Your task to perform on an android device: check battery use Image 0: 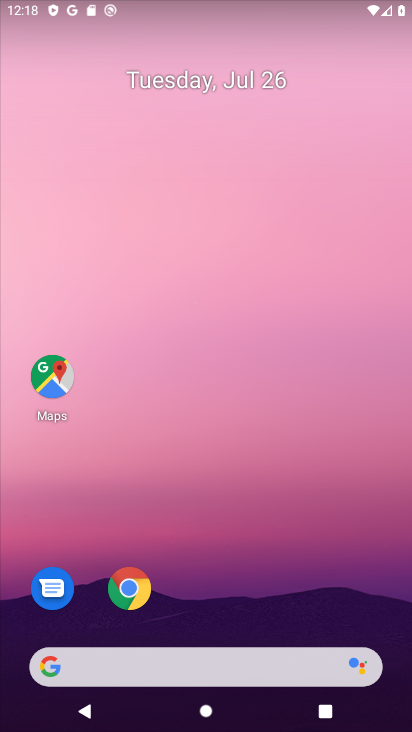
Step 0: drag from (263, 619) to (226, 11)
Your task to perform on an android device: check battery use Image 1: 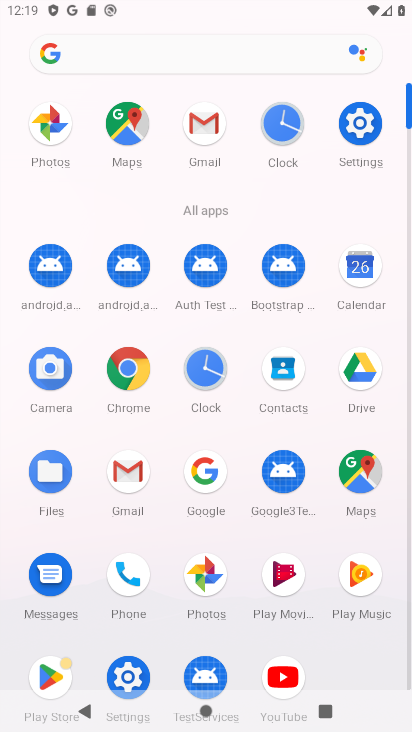
Step 1: click (366, 123)
Your task to perform on an android device: check battery use Image 2: 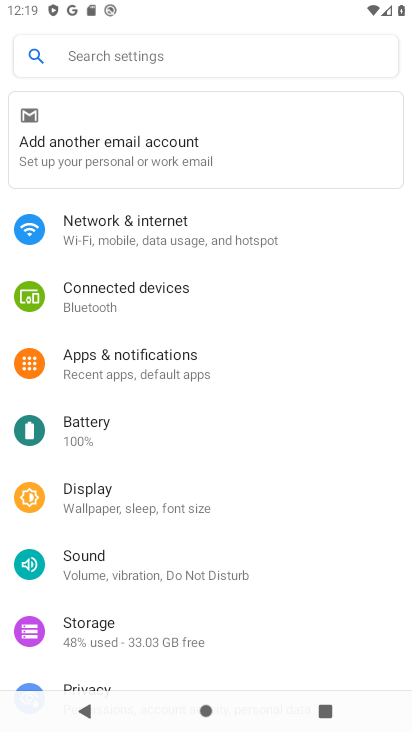
Step 2: drag from (213, 601) to (200, 279)
Your task to perform on an android device: check battery use Image 3: 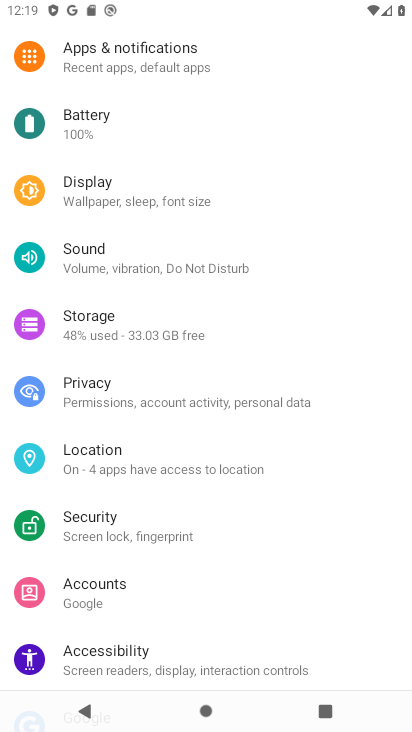
Step 3: click (305, 120)
Your task to perform on an android device: check battery use Image 4: 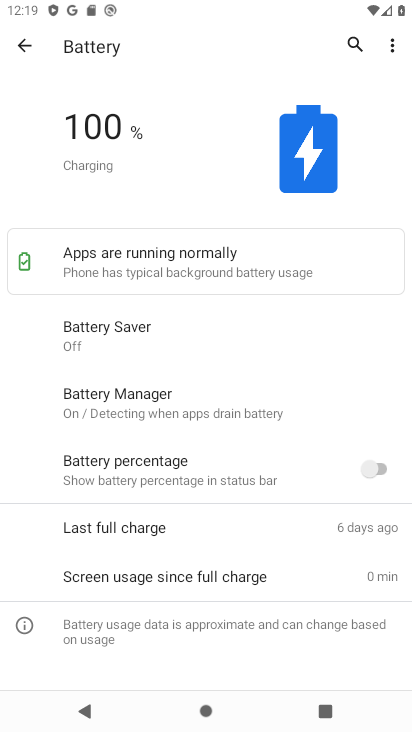
Step 4: click (400, 46)
Your task to perform on an android device: check battery use Image 5: 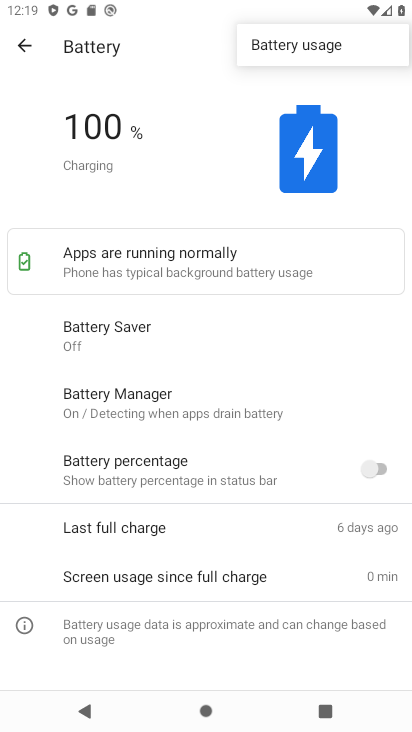
Step 5: click (352, 51)
Your task to perform on an android device: check battery use Image 6: 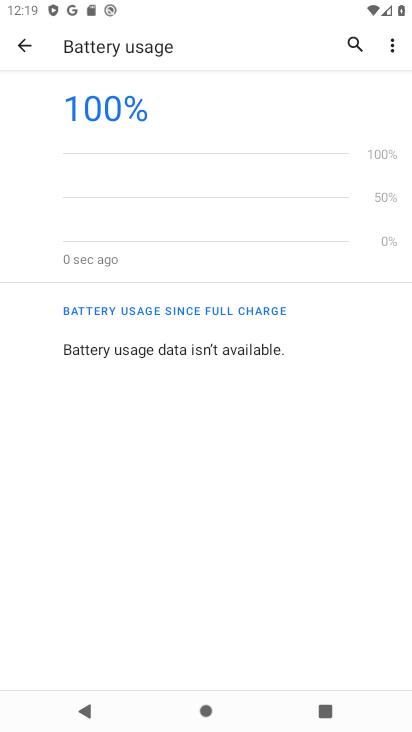
Step 6: task complete